Your task to perform on an android device: Search for seafood restaurants on Google Maps Image 0: 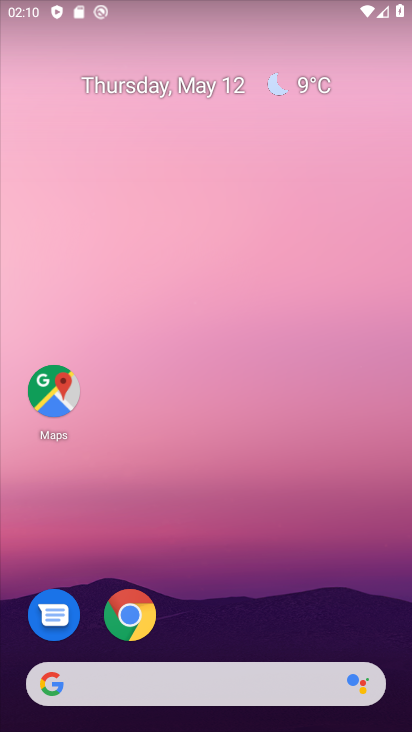
Step 0: click (70, 403)
Your task to perform on an android device: Search for seafood restaurants on Google Maps Image 1: 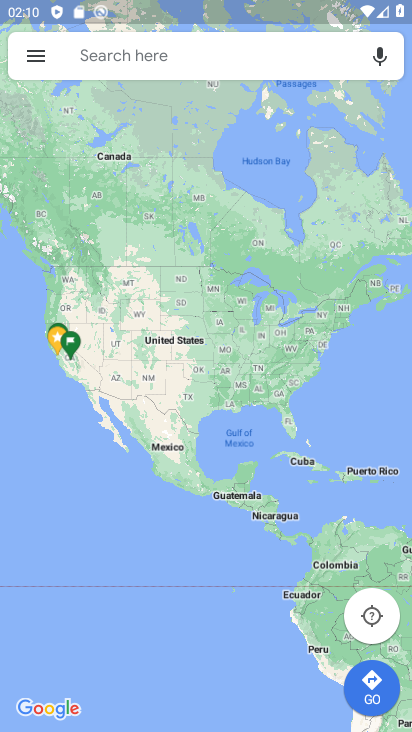
Step 1: click (197, 59)
Your task to perform on an android device: Search for seafood restaurants on Google Maps Image 2: 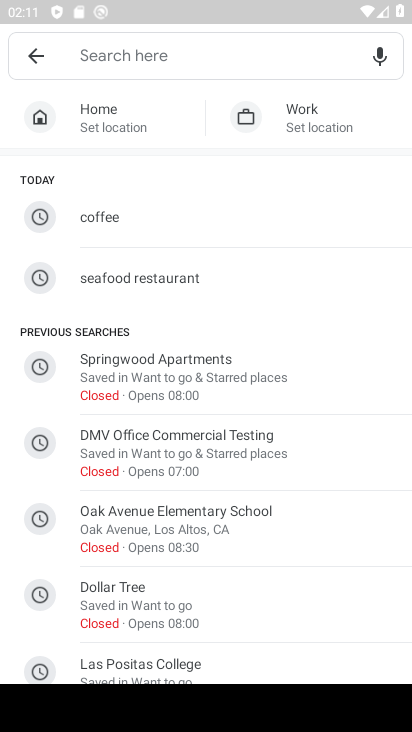
Step 2: click (198, 269)
Your task to perform on an android device: Search for seafood restaurants on Google Maps Image 3: 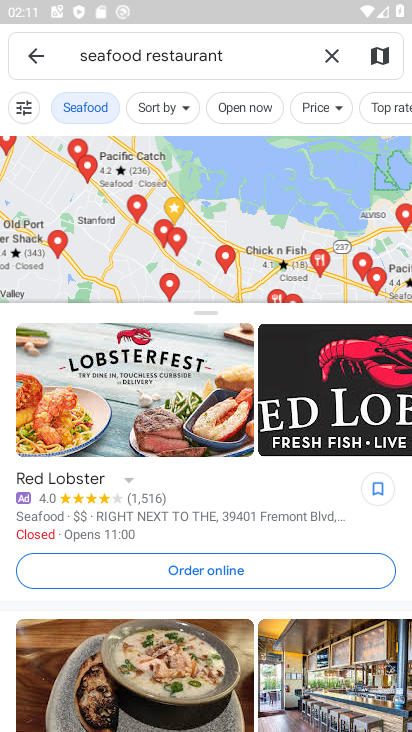
Step 3: task complete